Your task to perform on an android device: Open wifi settings Image 0: 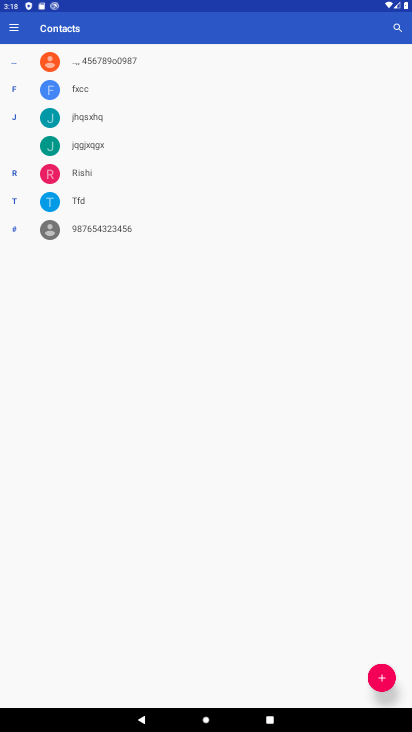
Step 0: press home button
Your task to perform on an android device: Open wifi settings Image 1: 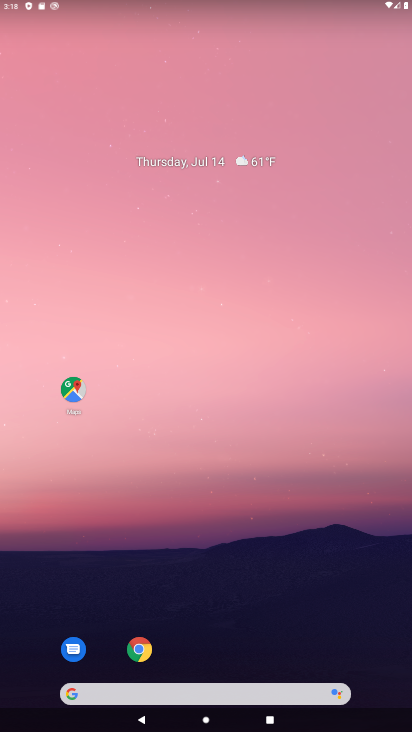
Step 1: drag from (183, 660) to (137, 203)
Your task to perform on an android device: Open wifi settings Image 2: 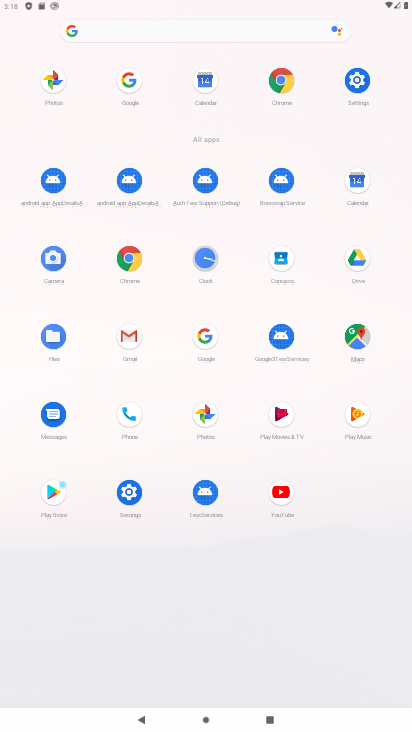
Step 2: click (128, 493)
Your task to perform on an android device: Open wifi settings Image 3: 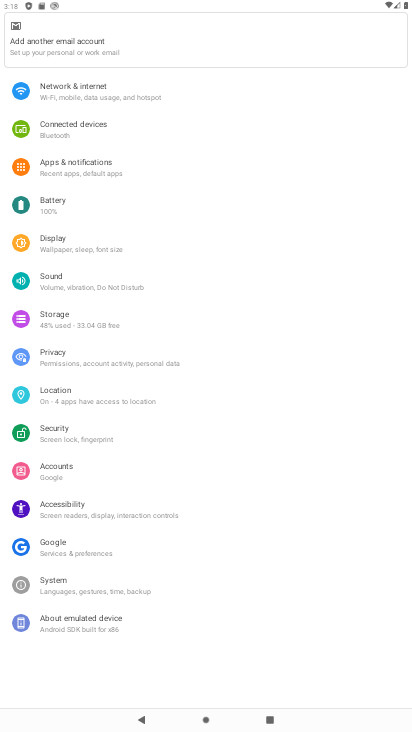
Step 3: click (54, 91)
Your task to perform on an android device: Open wifi settings Image 4: 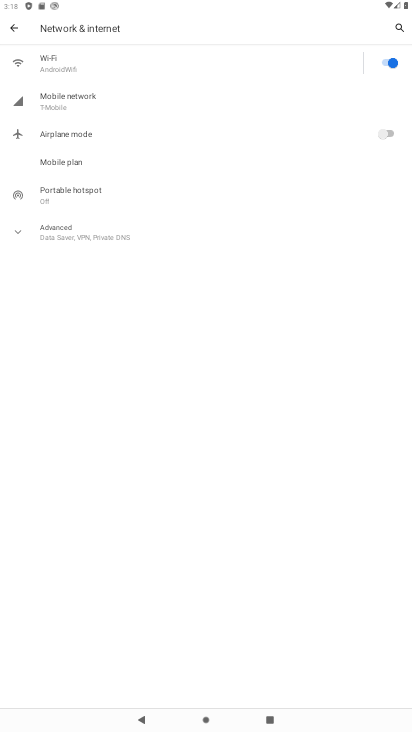
Step 4: click (50, 65)
Your task to perform on an android device: Open wifi settings Image 5: 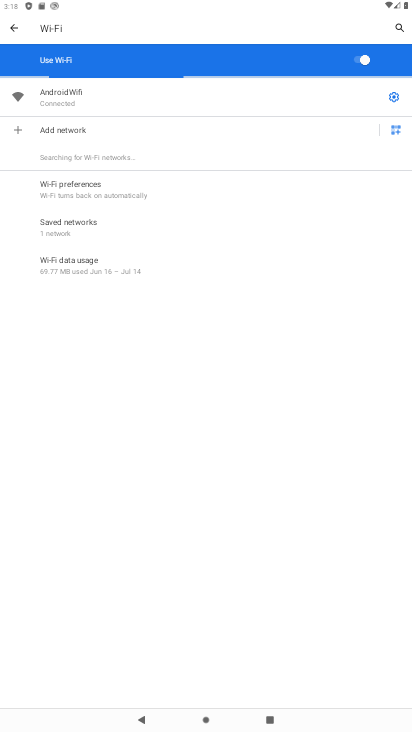
Step 5: task complete